Your task to perform on an android device: change the clock display to analog Image 0: 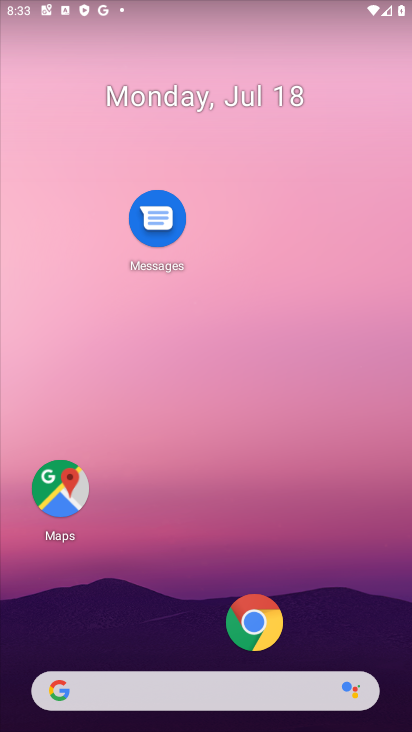
Step 0: drag from (175, 677) to (251, 114)
Your task to perform on an android device: change the clock display to analog Image 1: 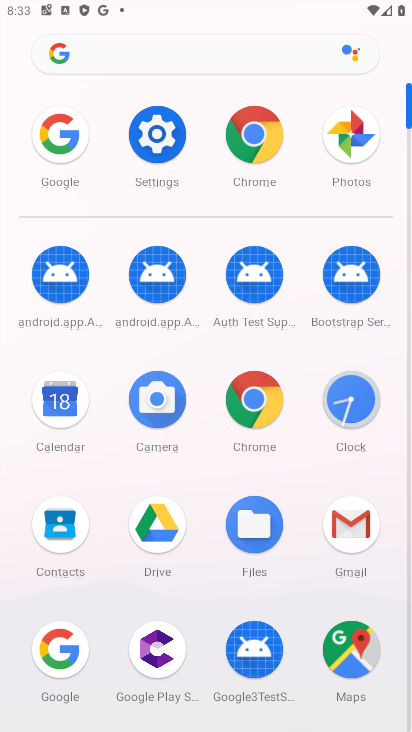
Step 1: click (353, 419)
Your task to perform on an android device: change the clock display to analog Image 2: 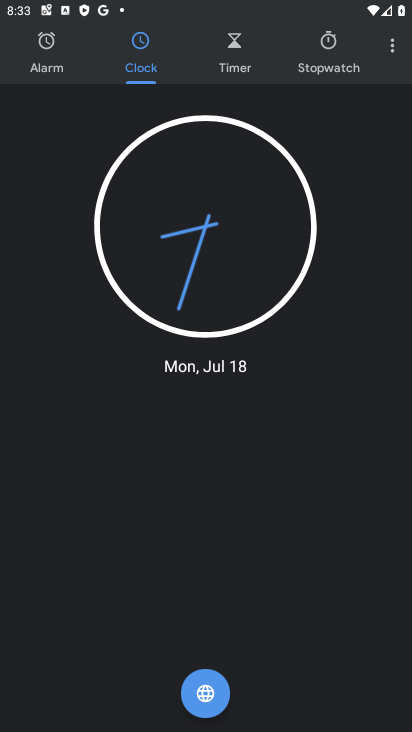
Step 2: click (395, 49)
Your task to perform on an android device: change the clock display to analog Image 3: 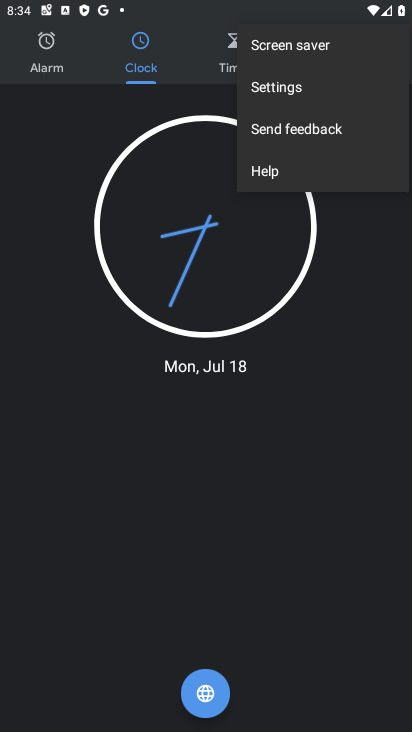
Step 3: click (299, 91)
Your task to perform on an android device: change the clock display to analog Image 4: 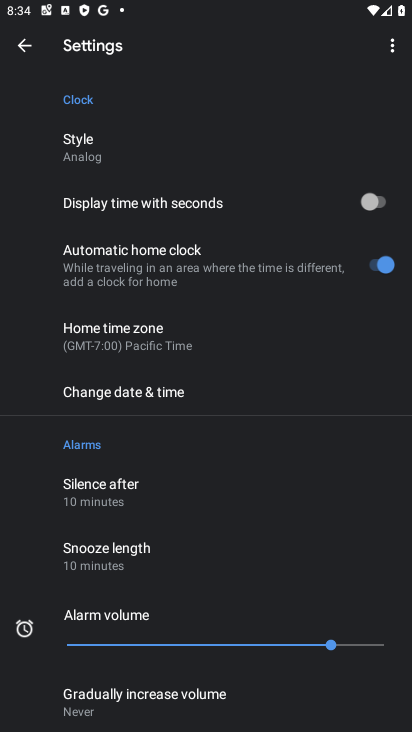
Step 4: click (113, 159)
Your task to perform on an android device: change the clock display to analog Image 5: 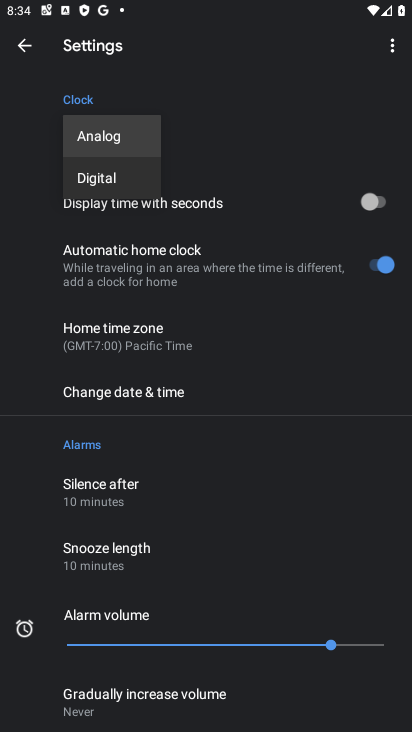
Step 5: task complete